Your task to perform on an android device: toggle location history Image 0: 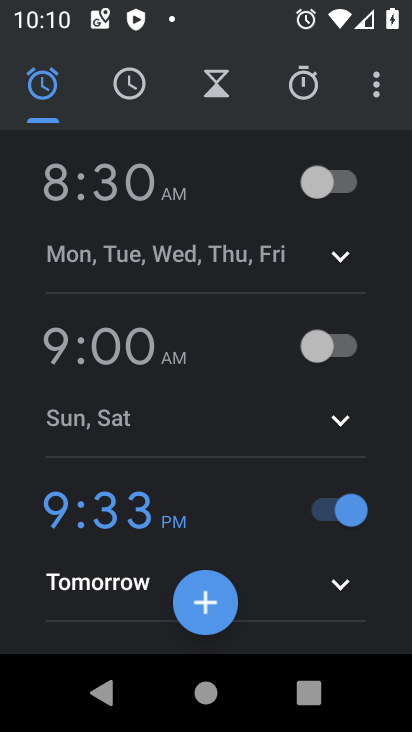
Step 0: press home button
Your task to perform on an android device: toggle location history Image 1: 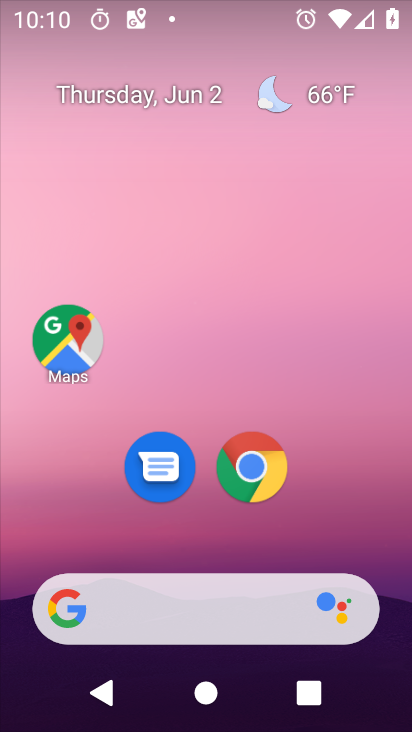
Step 1: drag from (30, 611) to (270, 183)
Your task to perform on an android device: toggle location history Image 2: 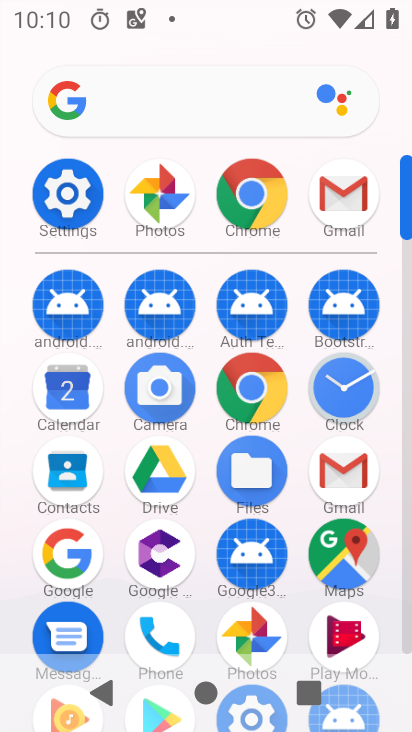
Step 2: click (69, 187)
Your task to perform on an android device: toggle location history Image 3: 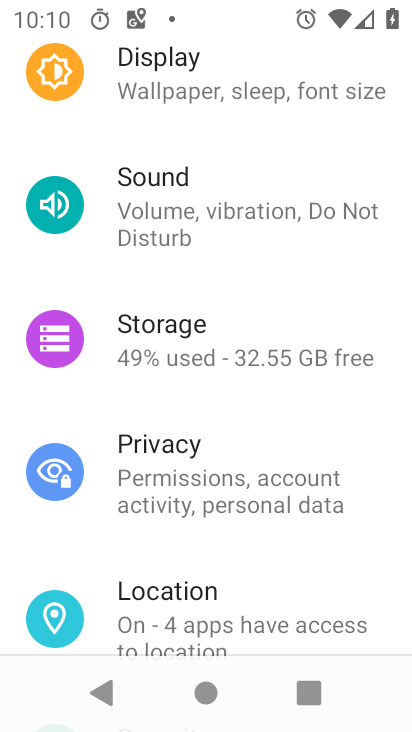
Step 3: click (193, 606)
Your task to perform on an android device: toggle location history Image 4: 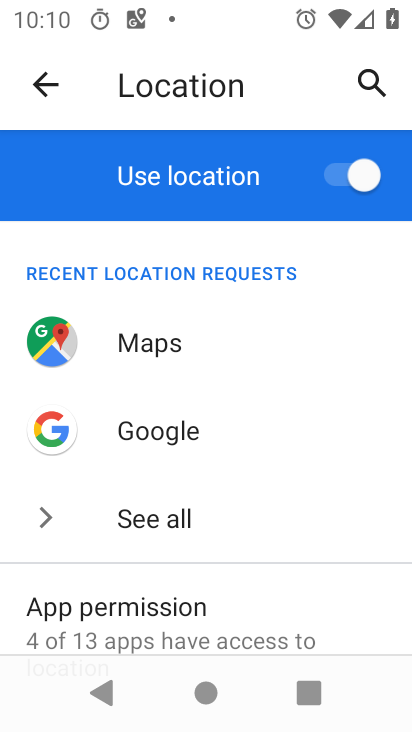
Step 4: drag from (30, 475) to (258, 222)
Your task to perform on an android device: toggle location history Image 5: 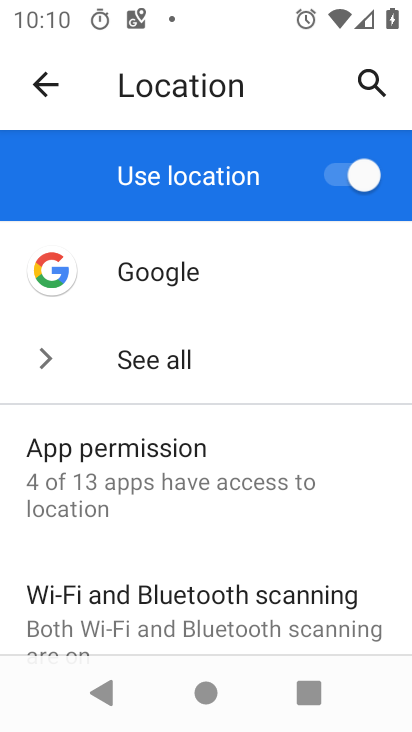
Step 5: drag from (15, 447) to (272, 215)
Your task to perform on an android device: toggle location history Image 6: 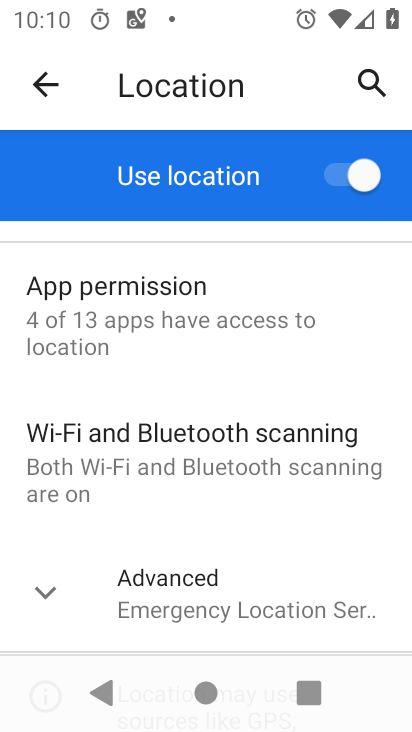
Step 6: click (148, 590)
Your task to perform on an android device: toggle location history Image 7: 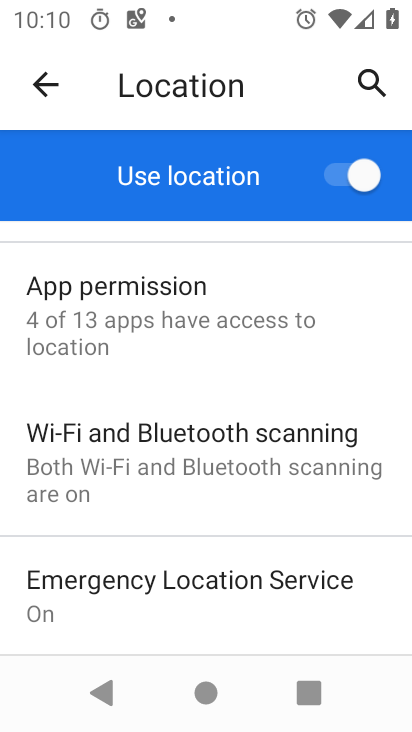
Step 7: drag from (28, 489) to (216, 233)
Your task to perform on an android device: toggle location history Image 8: 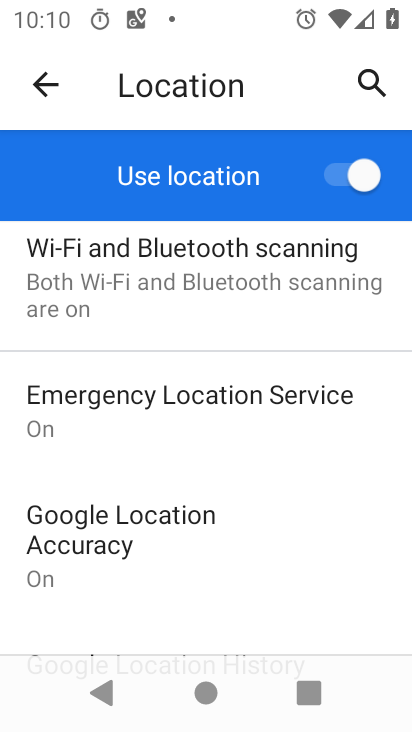
Step 8: drag from (29, 580) to (289, 280)
Your task to perform on an android device: toggle location history Image 9: 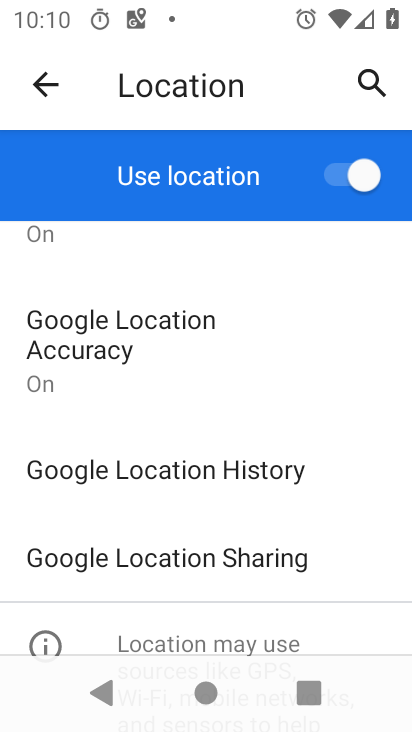
Step 9: click (254, 475)
Your task to perform on an android device: toggle location history Image 10: 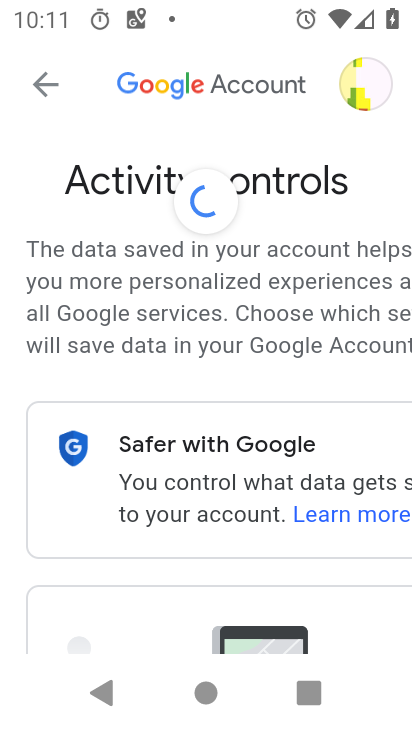
Step 10: drag from (50, 469) to (282, 158)
Your task to perform on an android device: toggle location history Image 11: 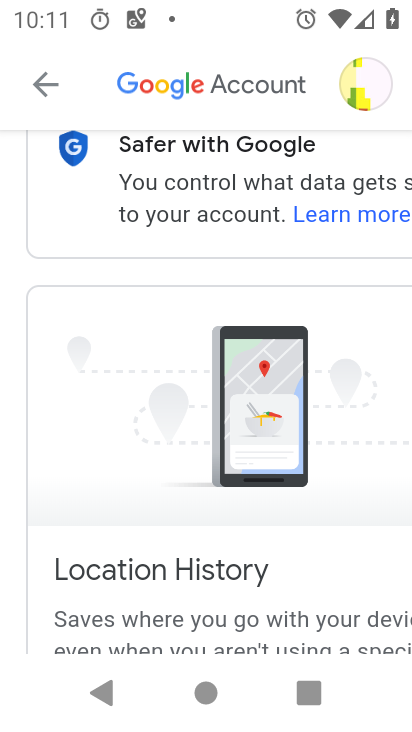
Step 11: drag from (13, 578) to (346, 186)
Your task to perform on an android device: toggle location history Image 12: 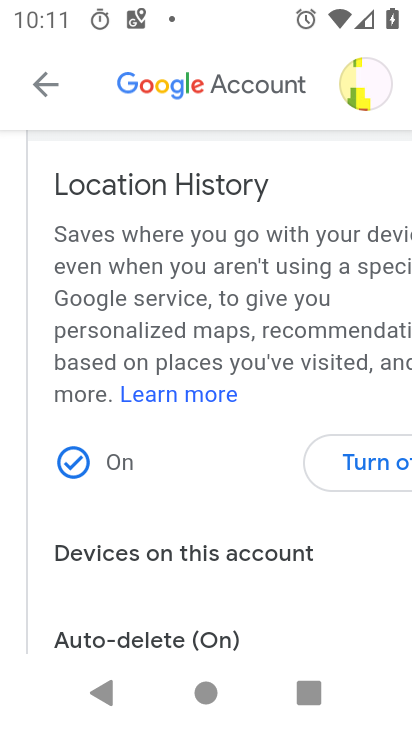
Step 12: click (365, 461)
Your task to perform on an android device: toggle location history Image 13: 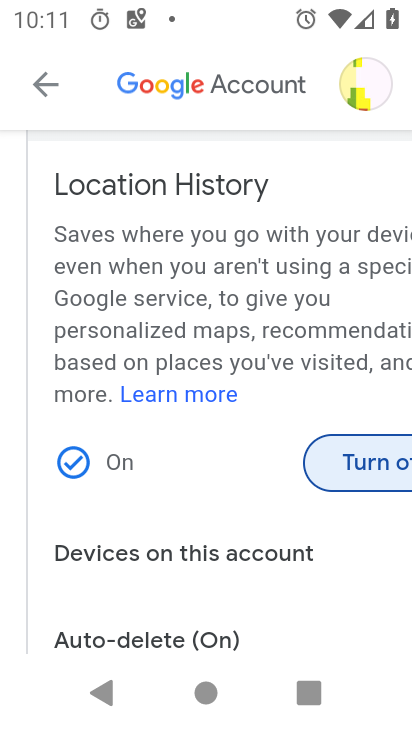
Step 13: click (353, 453)
Your task to perform on an android device: toggle location history Image 14: 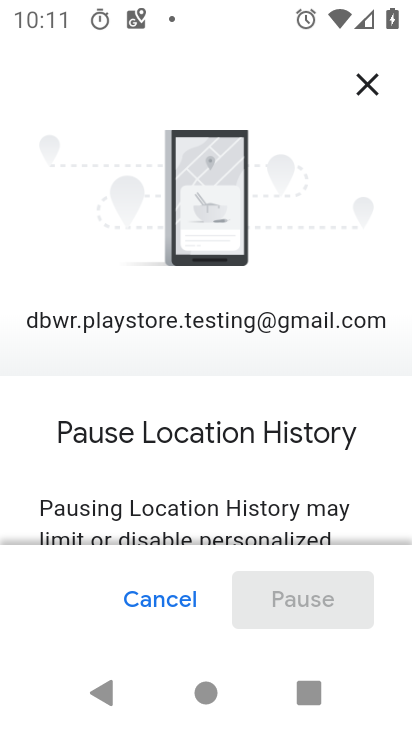
Step 14: drag from (32, 457) to (346, 6)
Your task to perform on an android device: toggle location history Image 15: 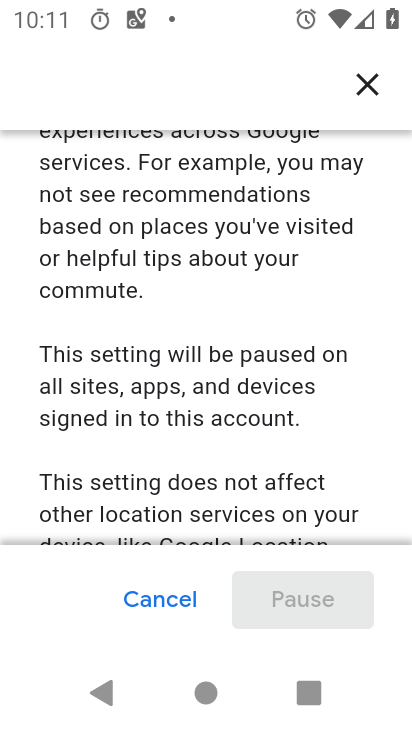
Step 15: drag from (42, 412) to (368, 38)
Your task to perform on an android device: toggle location history Image 16: 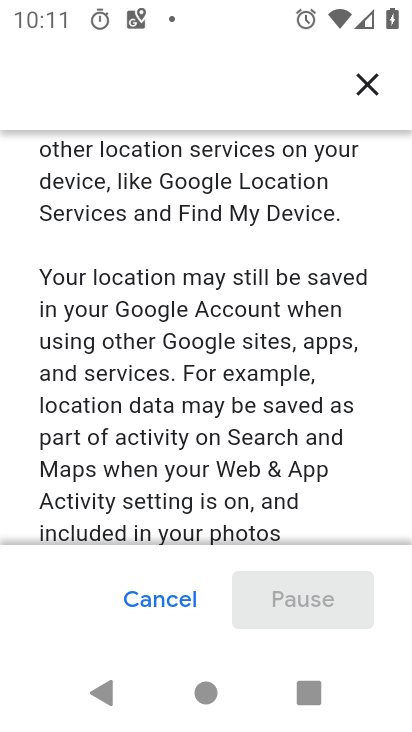
Step 16: drag from (4, 453) to (297, 148)
Your task to perform on an android device: toggle location history Image 17: 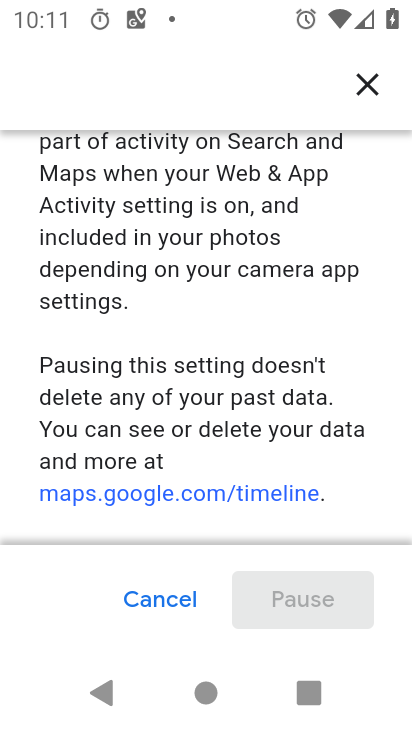
Step 17: drag from (69, 411) to (410, 206)
Your task to perform on an android device: toggle location history Image 18: 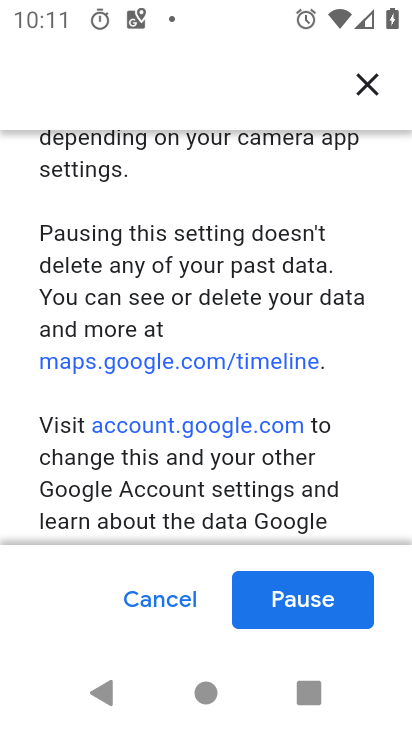
Step 18: click (298, 586)
Your task to perform on an android device: toggle location history Image 19: 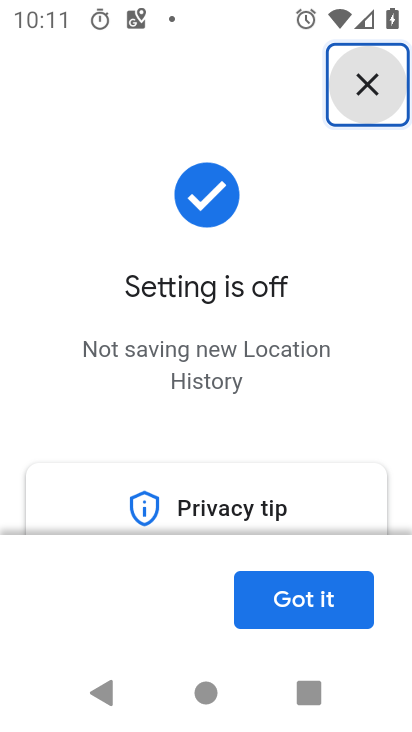
Step 19: click (331, 598)
Your task to perform on an android device: toggle location history Image 20: 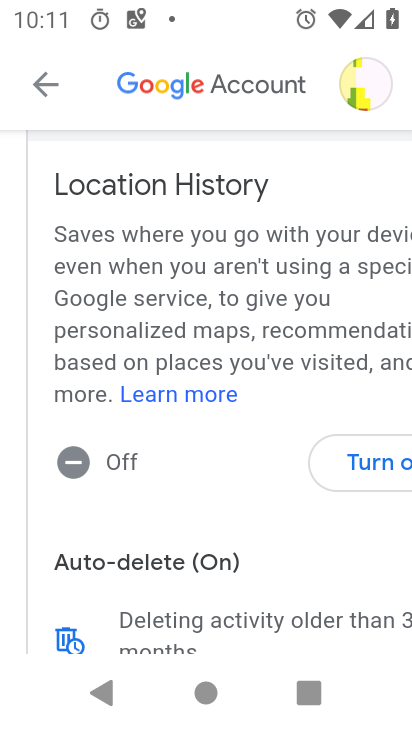
Step 20: task complete